Your task to perform on an android device: check battery use Image 0: 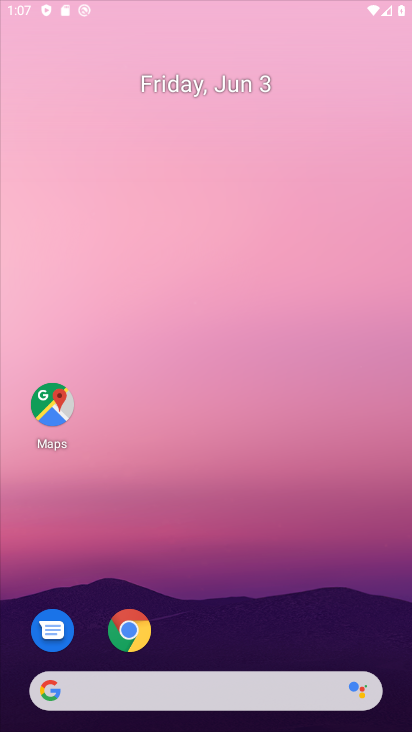
Step 0: drag from (194, 505) to (194, 104)
Your task to perform on an android device: check battery use Image 1: 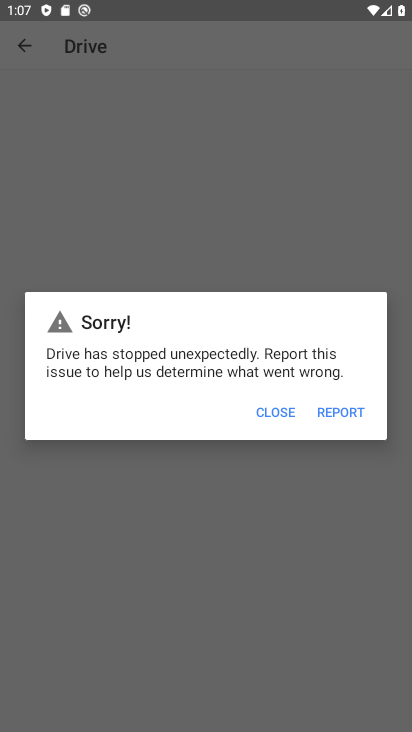
Step 1: press home button
Your task to perform on an android device: check battery use Image 2: 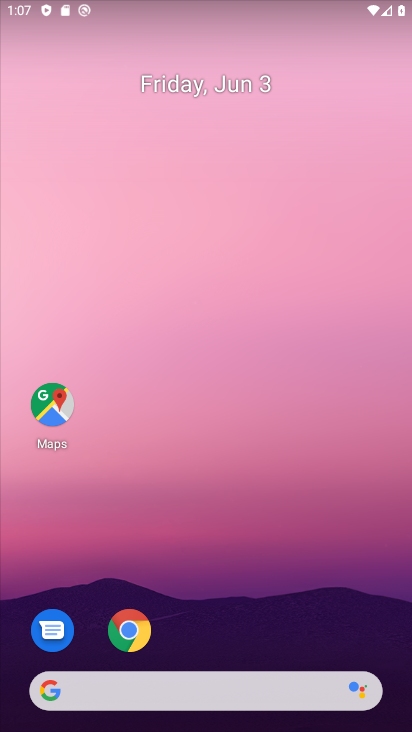
Step 2: drag from (231, 725) to (231, 119)
Your task to perform on an android device: check battery use Image 3: 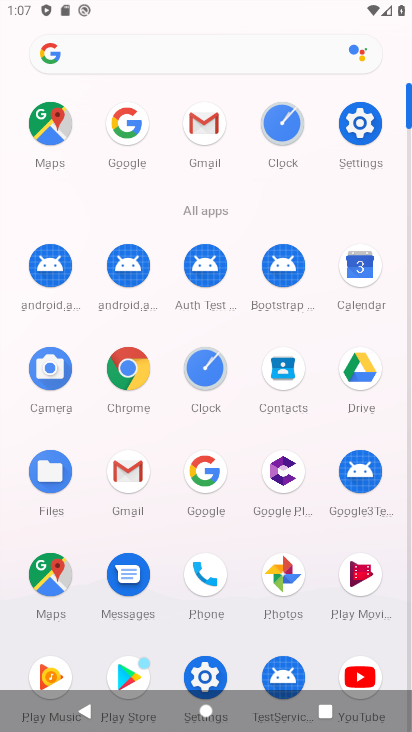
Step 3: click (362, 154)
Your task to perform on an android device: check battery use Image 4: 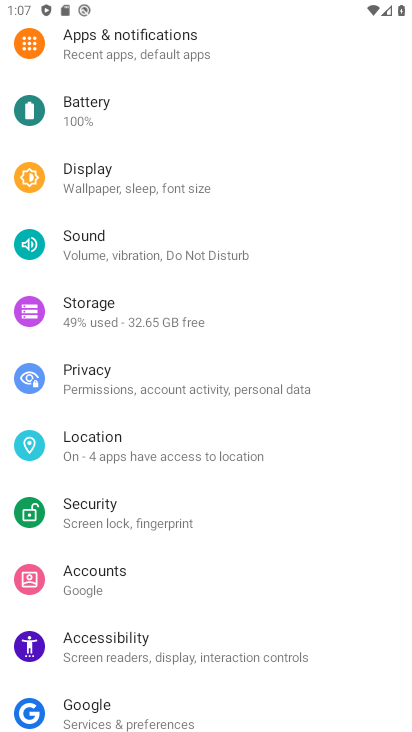
Step 4: click (78, 104)
Your task to perform on an android device: check battery use Image 5: 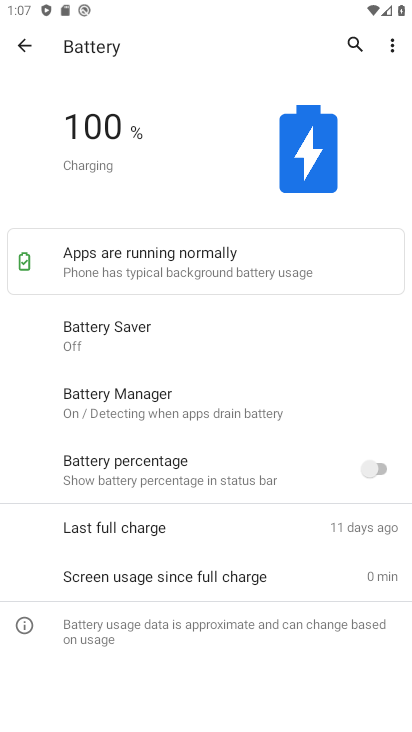
Step 5: click (389, 47)
Your task to perform on an android device: check battery use Image 6: 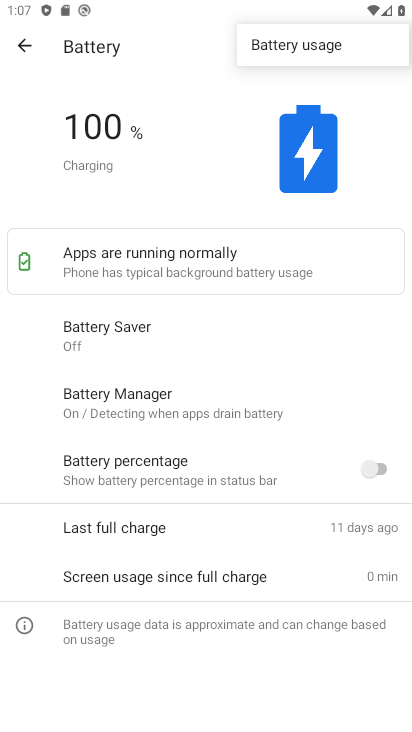
Step 6: click (313, 40)
Your task to perform on an android device: check battery use Image 7: 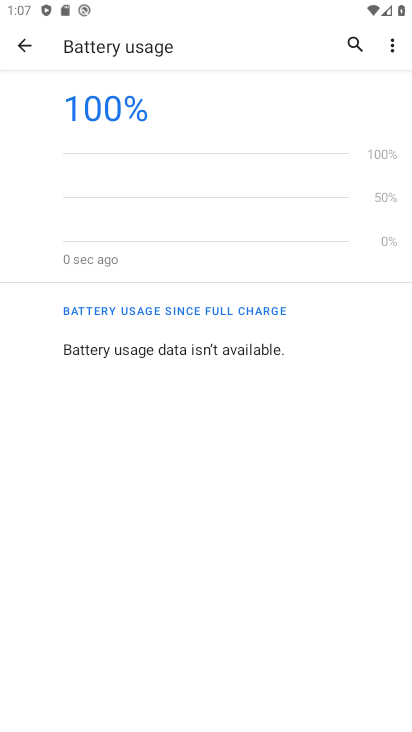
Step 7: task complete